Your task to perform on an android device: Find coffee shops on Maps Image 0: 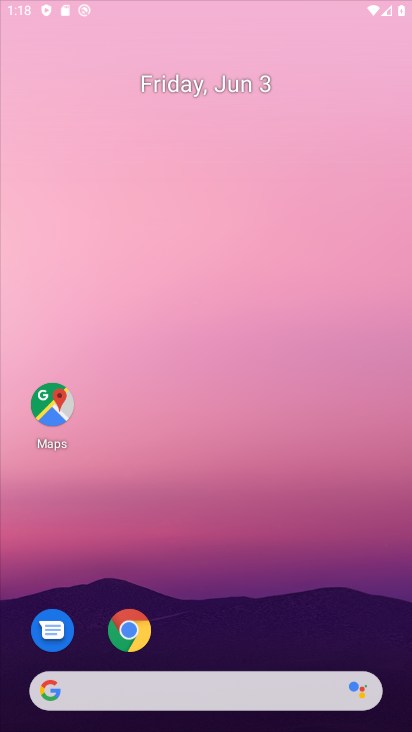
Step 0: click (215, 220)
Your task to perform on an android device: Find coffee shops on Maps Image 1: 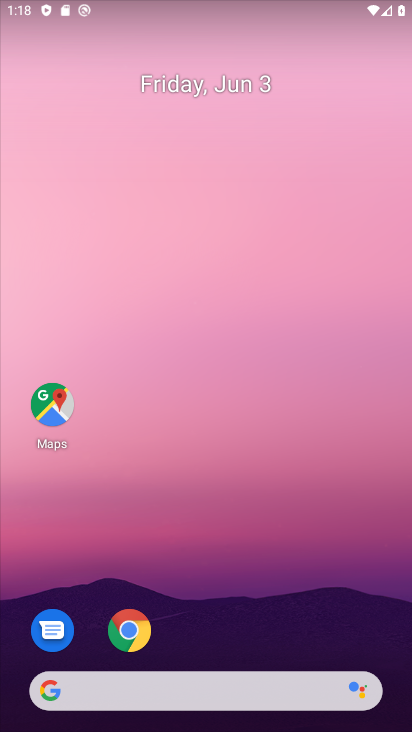
Step 1: drag from (229, 715) to (244, 135)
Your task to perform on an android device: Find coffee shops on Maps Image 2: 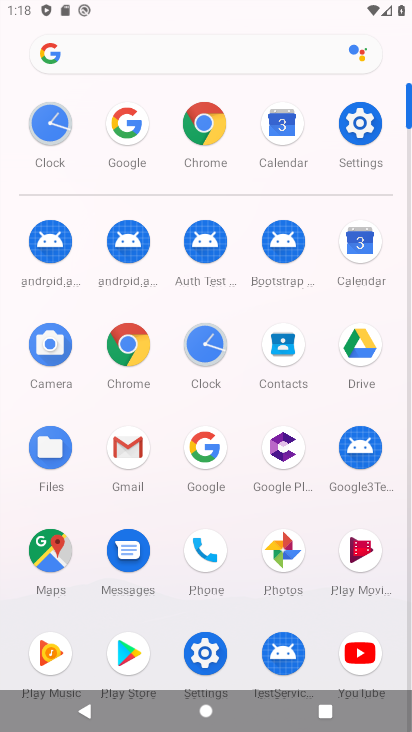
Step 2: click (46, 553)
Your task to perform on an android device: Find coffee shops on Maps Image 3: 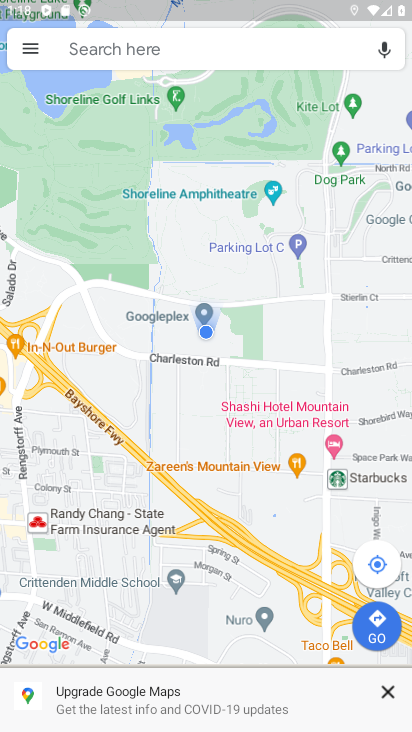
Step 3: click (159, 49)
Your task to perform on an android device: Find coffee shops on Maps Image 4: 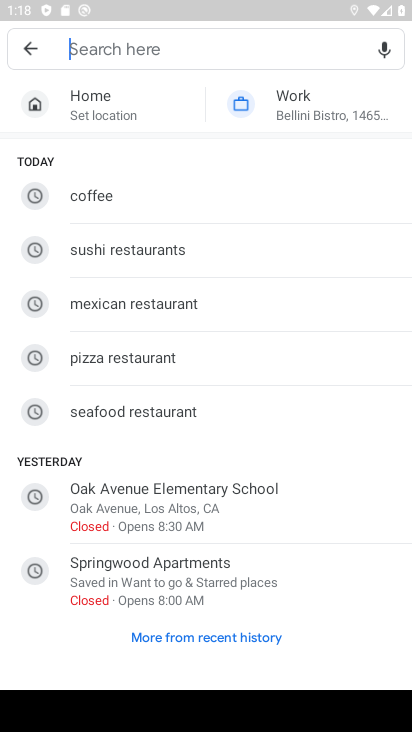
Step 4: type "Coffee shops"
Your task to perform on an android device: Find coffee shops on Maps Image 5: 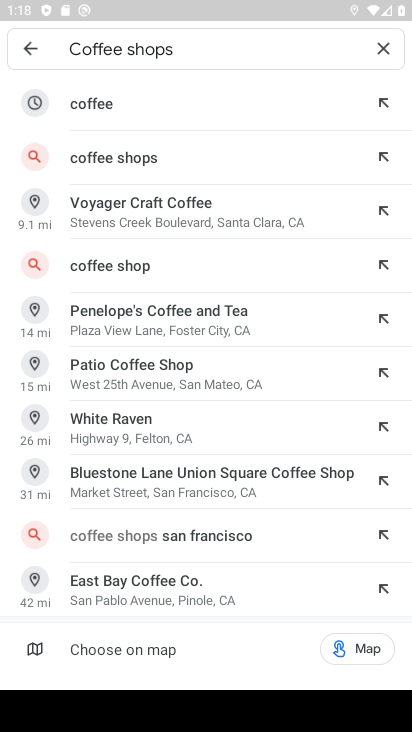
Step 5: click (128, 156)
Your task to perform on an android device: Find coffee shops on Maps Image 6: 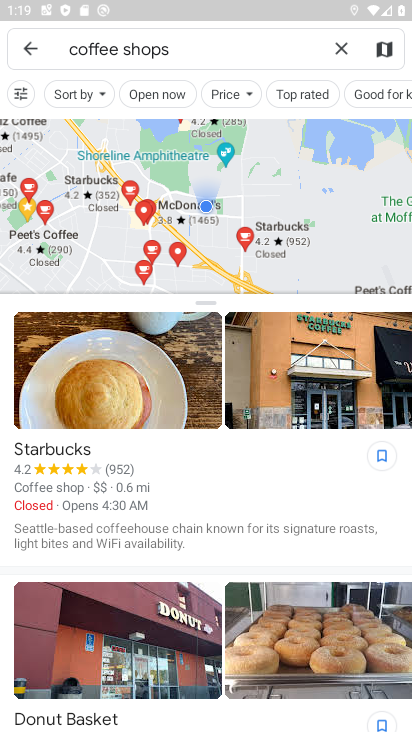
Step 6: task complete